Your task to perform on an android device: add a contact Image 0: 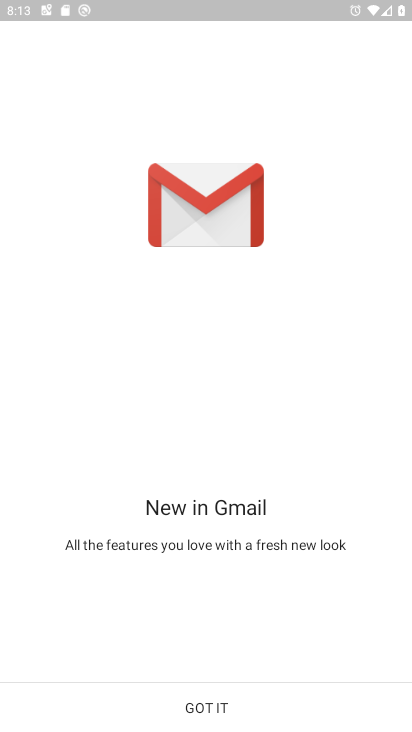
Step 0: press home button
Your task to perform on an android device: add a contact Image 1: 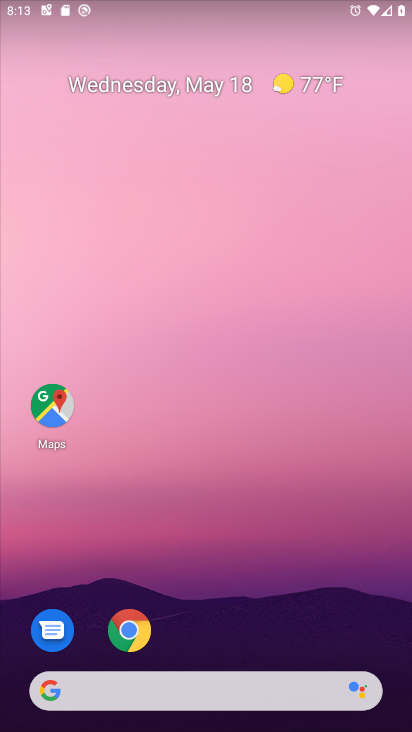
Step 1: drag from (241, 574) to (266, 254)
Your task to perform on an android device: add a contact Image 2: 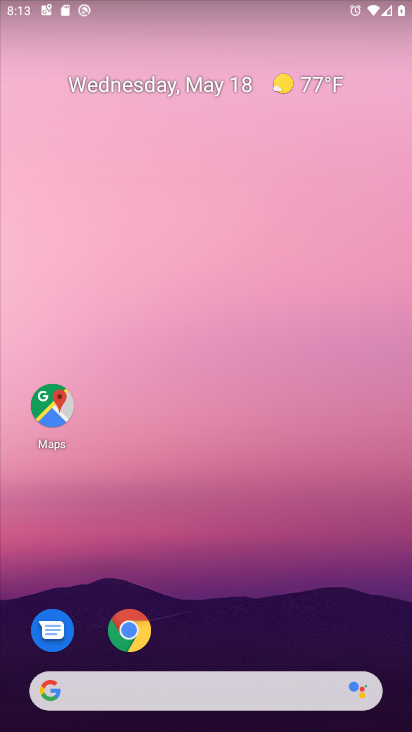
Step 2: drag from (273, 611) to (327, 176)
Your task to perform on an android device: add a contact Image 3: 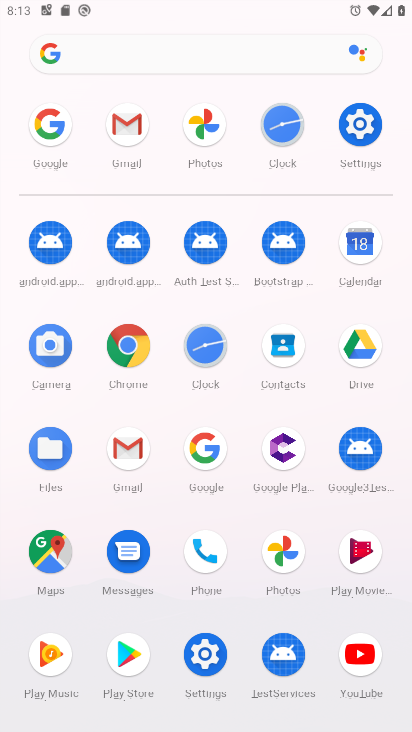
Step 3: click (281, 357)
Your task to perform on an android device: add a contact Image 4: 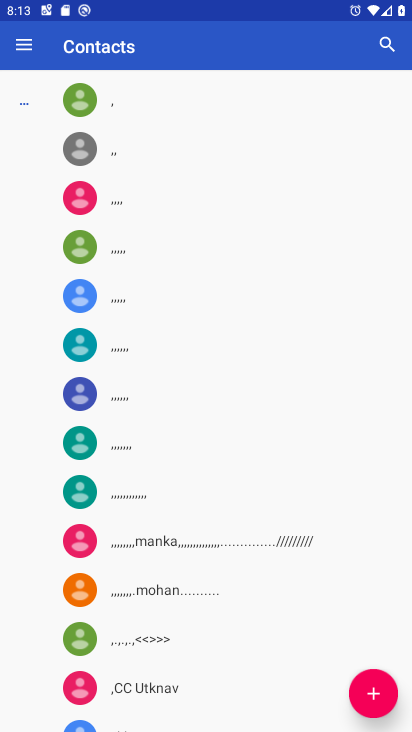
Step 4: click (376, 695)
Your task to perform on an android device: add a contact Image 5: 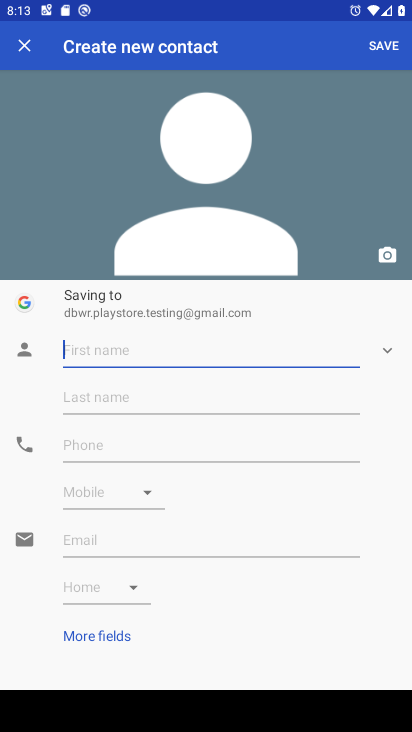
Step 5: type "simmoo"
Your task to perform on an android device: add a contact Image 6: 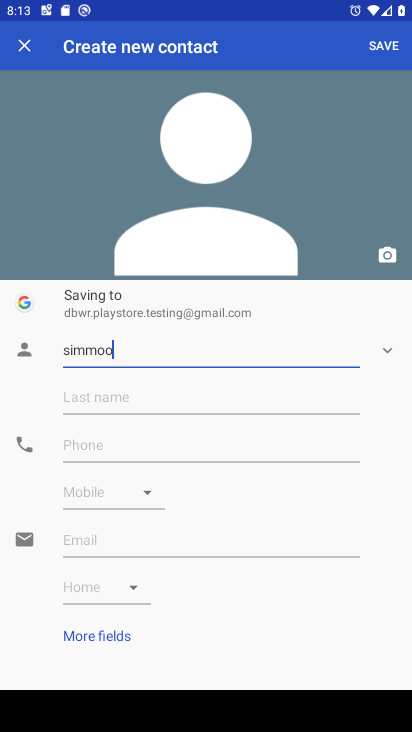
Step 6: click (142, 447)
Your task to perform on an android device: add a contact Image 7: 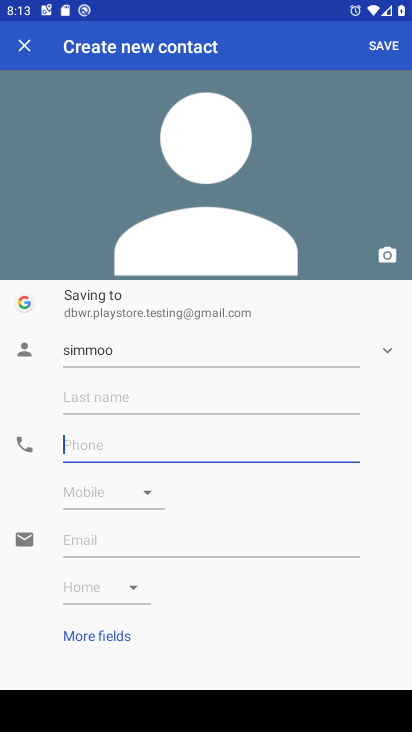
Step 7: type "7567546567"
Your task to perform on an android device: add a contact Image 8: 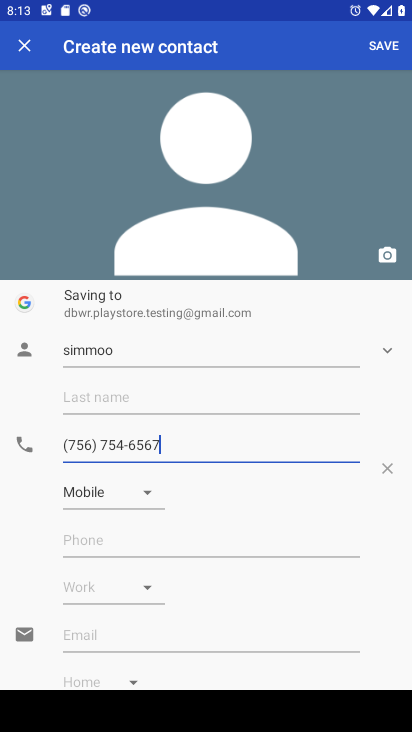
Step 8: click (386, 54)
Your task to perform on an android device: add a contact Image 9: 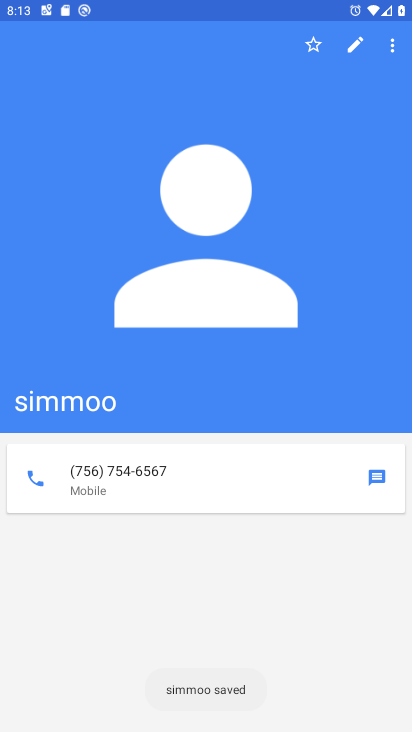
Step 9: task complete